Your task to perform on an android device: Open the web browser Image 0: 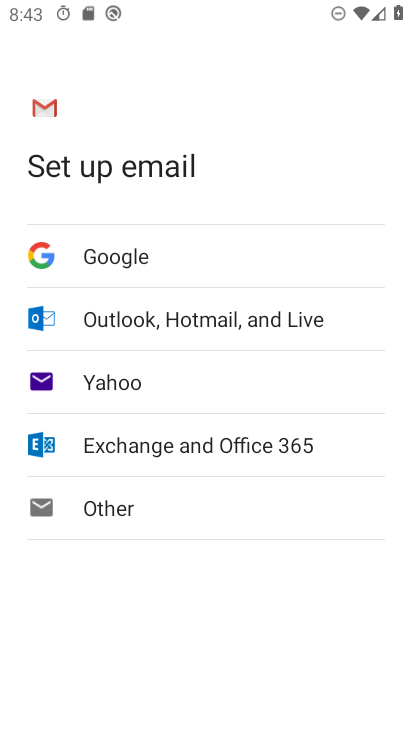
Step 0: press back button
Your task to perform on an android device: Open the web browser Image 1: 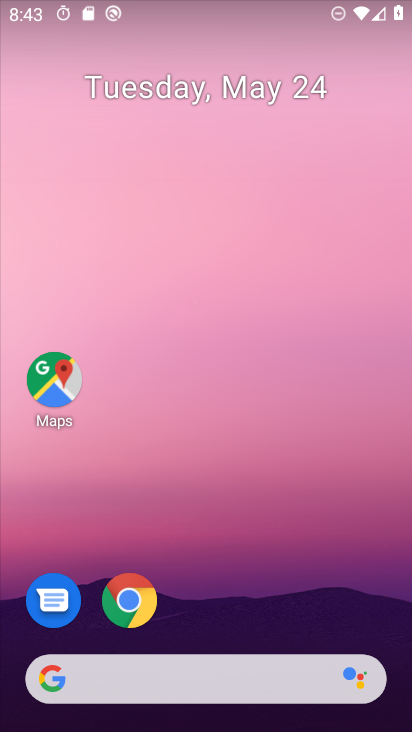
Step 1: click (138, 600)
Your task to perform on an android device: Open the web browser Image 2: 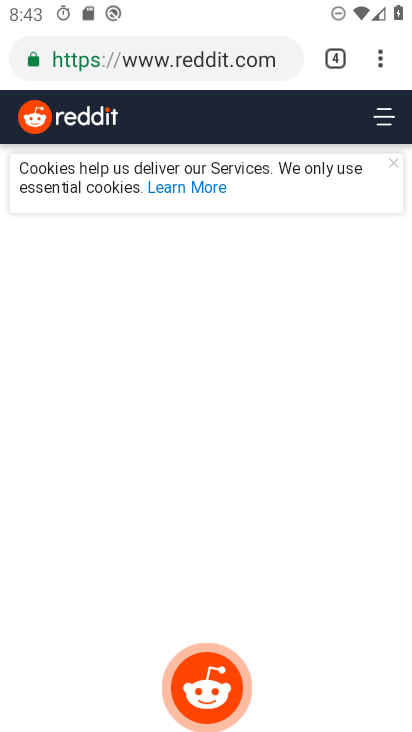
Step 2: task complete